Your task to perform on an android device: open chrome and create a bookmark for the current page Image 0: 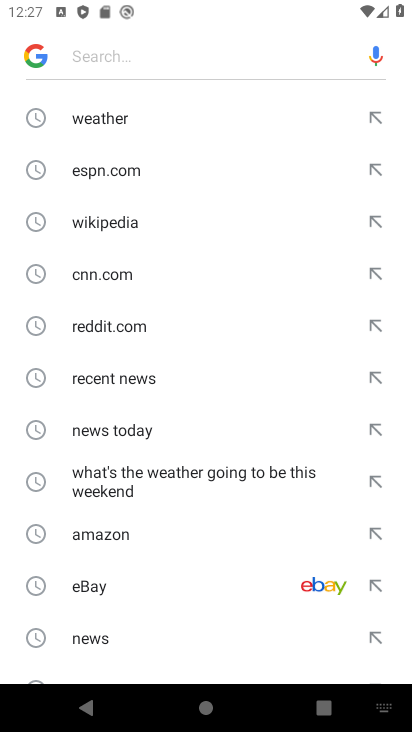
Step 0: press home button
Your task to perform on an android device: open chrome and create a bookmark for the current page Image 1: 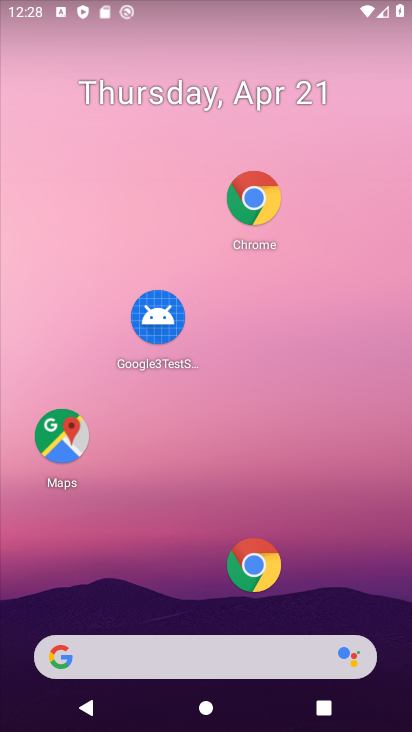
Step 1: drag from (334, 586) to (312, 194)
Your task to perform on an android device: open chrome and create a bookmark for the current page Image 2: 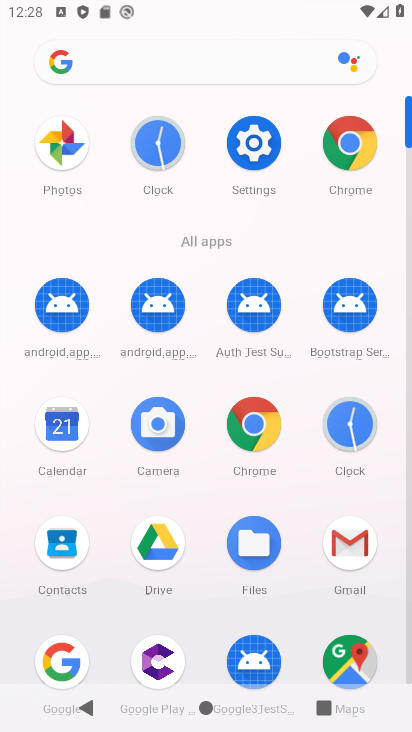
Step 2: click (346, 157)
Your task to perform on an android device: open chrome and create a bookmark for the current page Image 3: 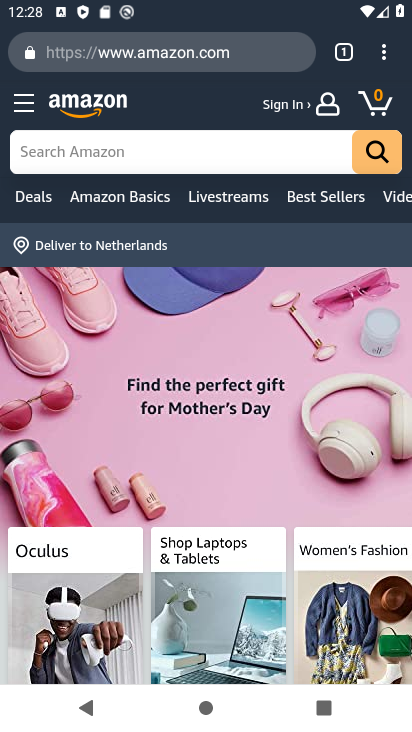
Step 3: click (377, 55)
Your task to perform on an android device: open chrome and create a bookmark for the current page Image 4: 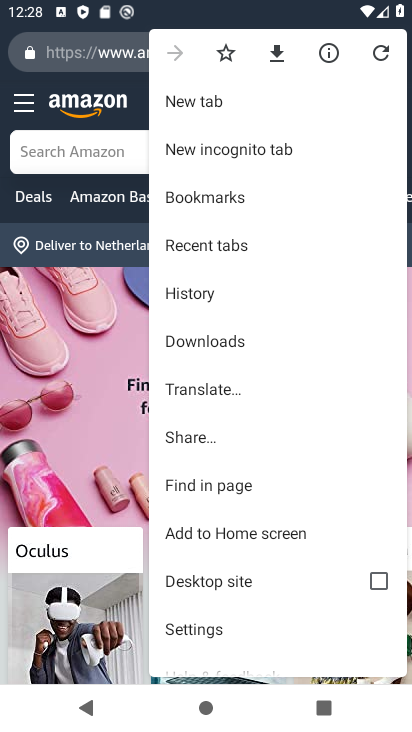
Step 4: click (224, 54)
Your task to perform on an android device: open chrome and create a bookmark for the current page Image 5: 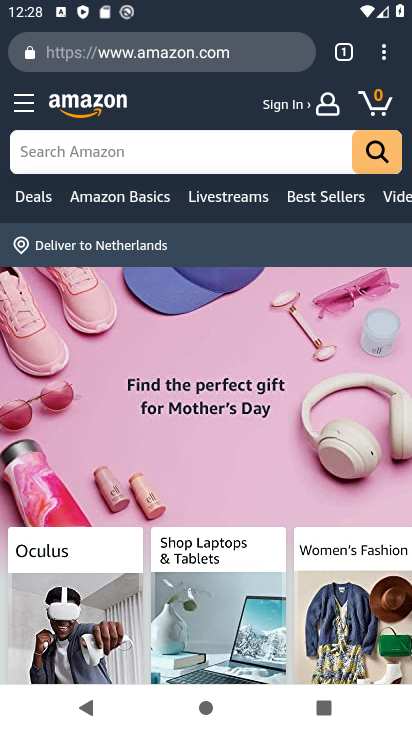
Step 5: task complete